Your task to perform on an android device: toggle notifications settings in the gmail app Image 0: 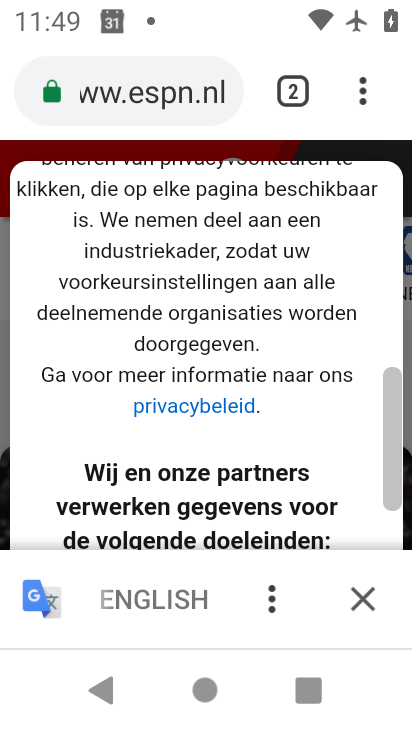
Step 0: press home button
Your task to perform on an android device: toggle notifications settings in the gmail app Image 1: 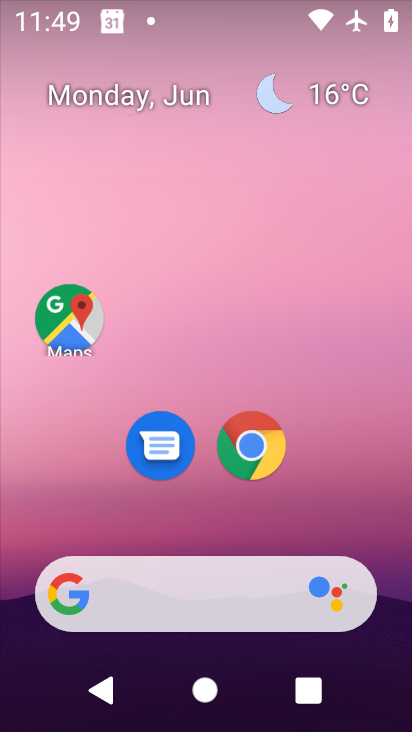
Step 1: drag from (357, 478) to (329, 130)
Your task to perform on an android device: toggle notifications settings in the gmail app Image 2: 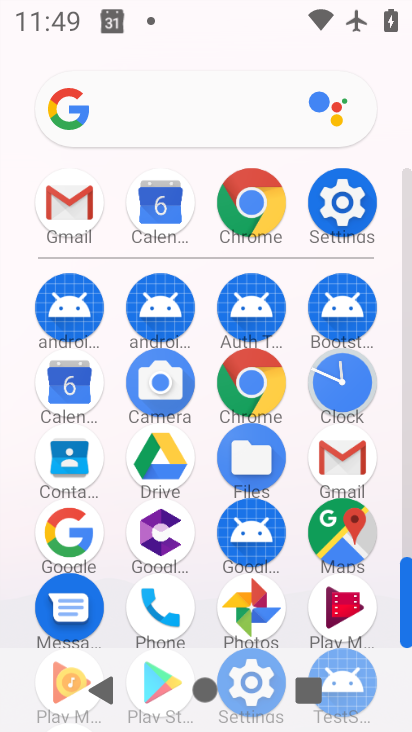
Step 2: click (352, 215)
Your task to perform on an android device: toggle notifications settings in the gmail app Image 3: 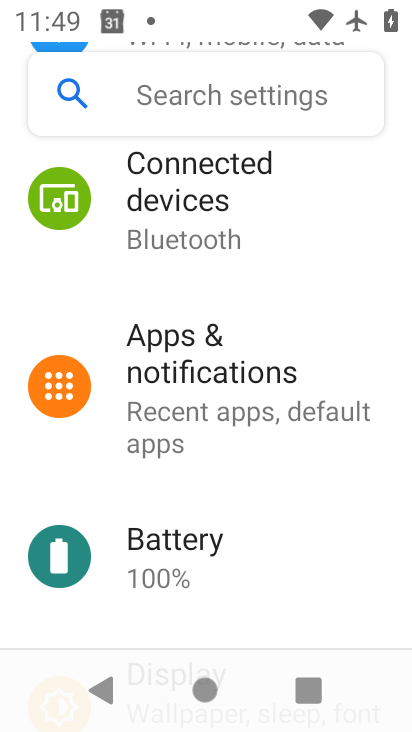
Step 3: click (217, 378)
Your task to perform on an android device: toggle notifications settings in the gmail app Image 4: 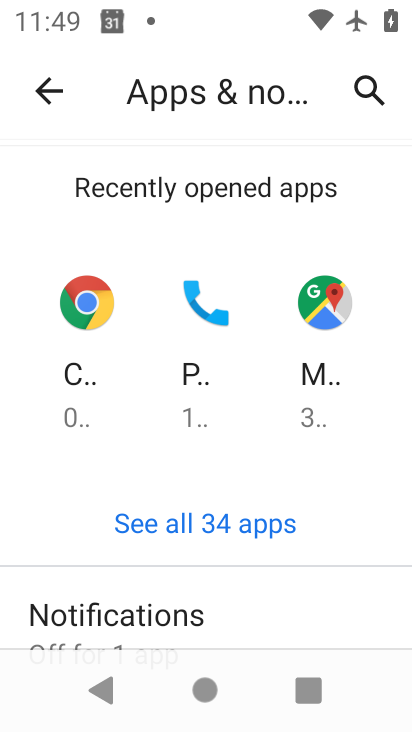
Step 4: drag from (313, 603) to (284, 302)
Your task to perform on an android device: toggle notifications settings in the gmail app Image 5: 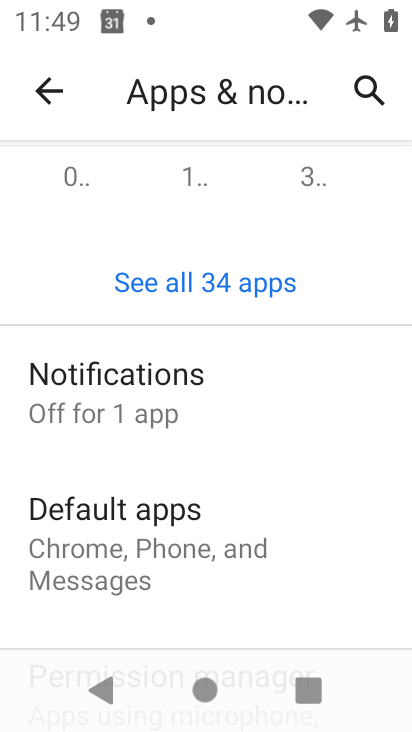
Step 5: click (268, 393)
Your task to perform on an android device: toggle notifications settings in the gmail app Image 6: 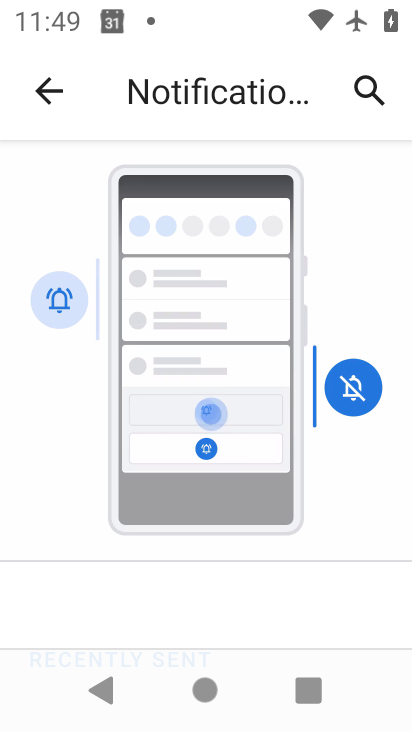
Step 6: drag from (324, 595) to (282, 39)
Your task to perform on an android device: toggle notifications settings in the gmail app Image 7: 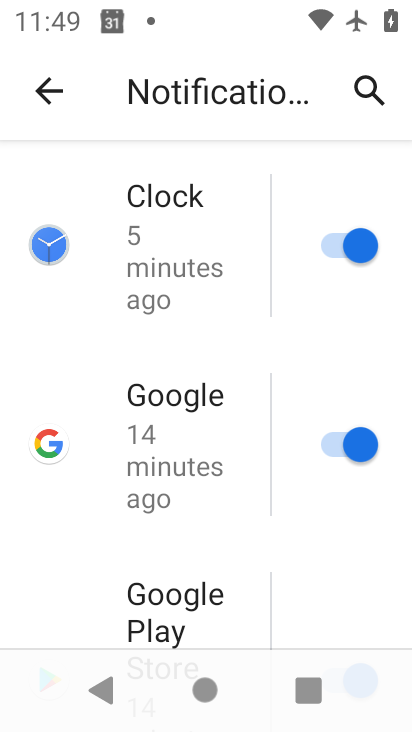
Step 7: drag from (265, 597) to (238, 125)
Your task to perform on an android device: toggle notifications settings in the gmail app Image 8: 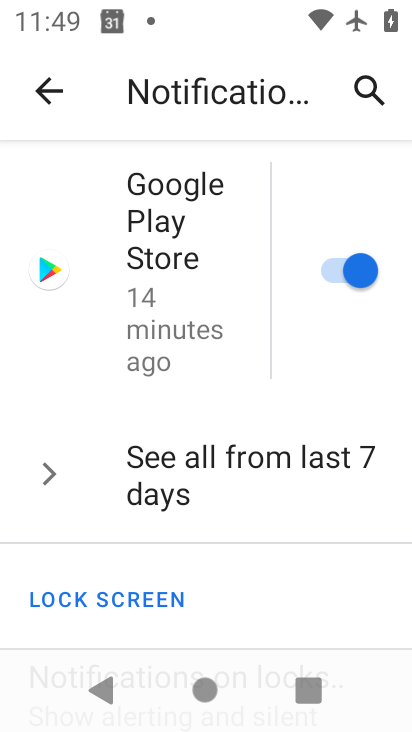
Step 8: drag from (246, 597) to (251, 124)
Your task to perform on an android device: toggle notifications settings in the gmail app Image 9: 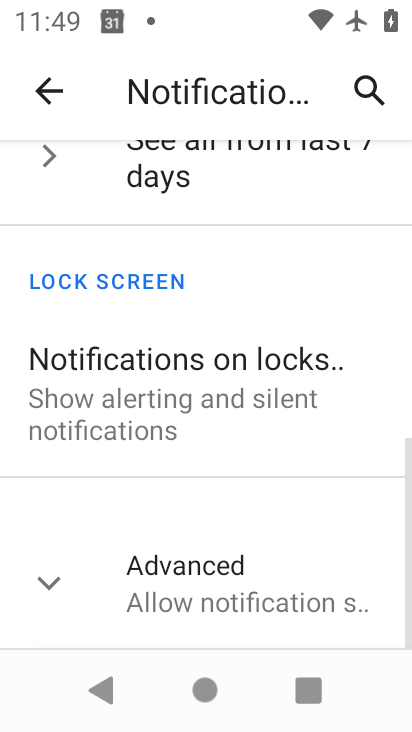
Step 9: drag from (243, 477) to (260, 729)
Your task to perform on an android device: toggle notifications settings in the gmail app Image 10: 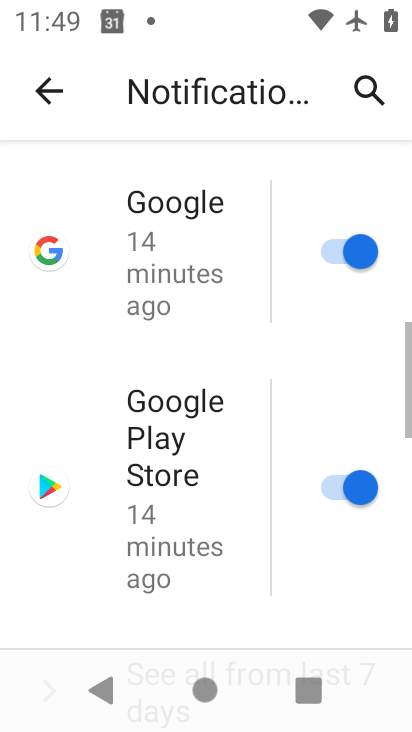
Step 10: drag from (164, 240) to (188, 722)
Your task to perform on an android device: toggle notifications settings in the gmail app Image 11: 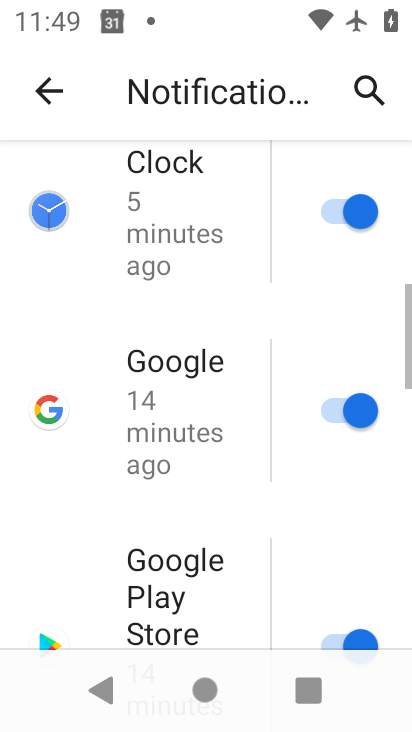
Step 11: drag from (236, 168) to (241, 707)
Your task to perform on an android device: toggle notifications settings in the gmail app Image 12: 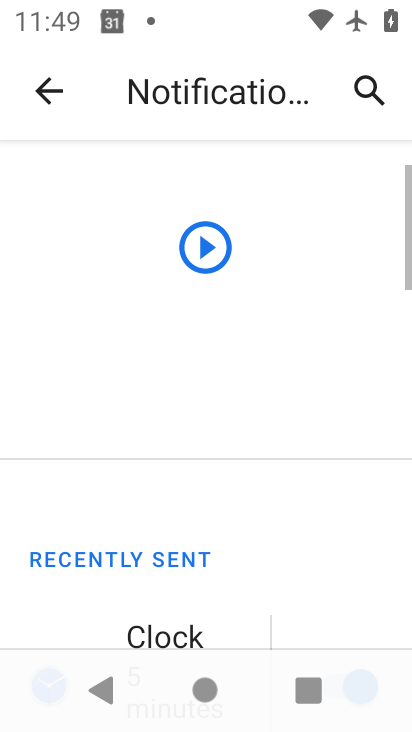
Step 12: drag from (283, 264) to (304, 718)
Your task to perform on an android device: toggle notifications settings in the gmail app Image 13: 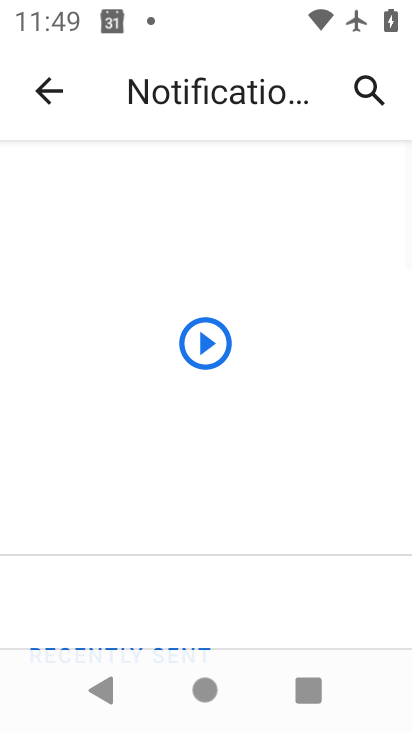
Step 13: drag from (274, 627) to (320, 204)
Your task to perform on an android device: toggle notifications settings in the gmail app Image 14: 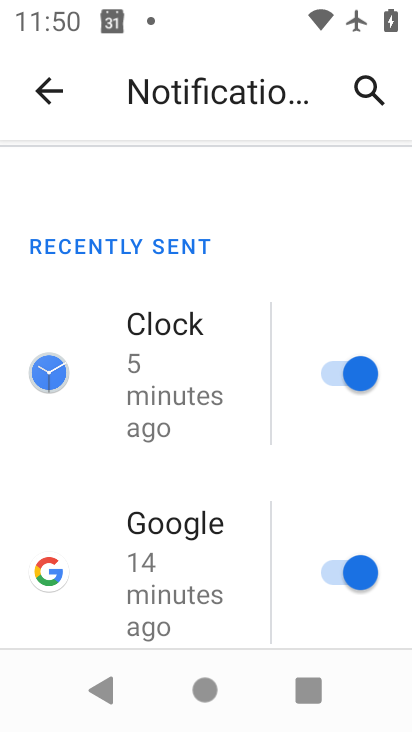
Step 14: click (347, 362)
Your task to perform on an android device: toggle notifications settings in the gmail app Image 15: 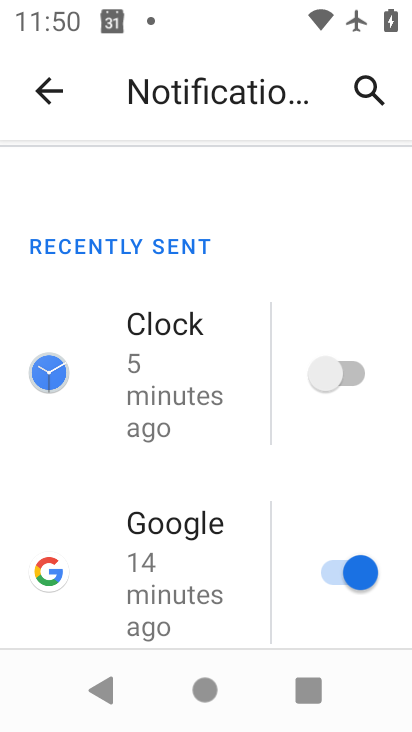
Step 15: task complete